Your task to perform on an android device: Open the calendar and show me this week's events Image 0: 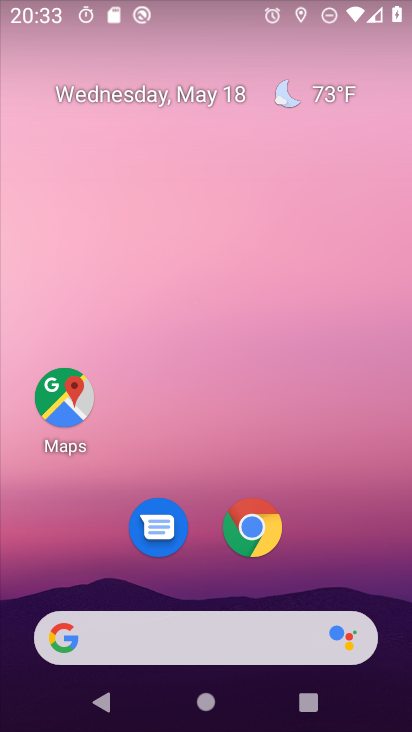
Step 0: drag from (396, 713) to (373, 213)
Your task to perform on an android device: Open the calendar and show me this week's events Image 1: 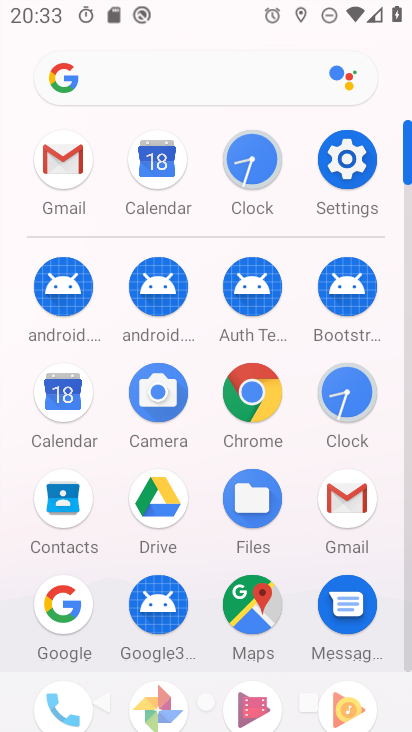
Step 1: click (77, 410)
Your task to perform on an android device: Open the calendar and show me this week's events Image 2: 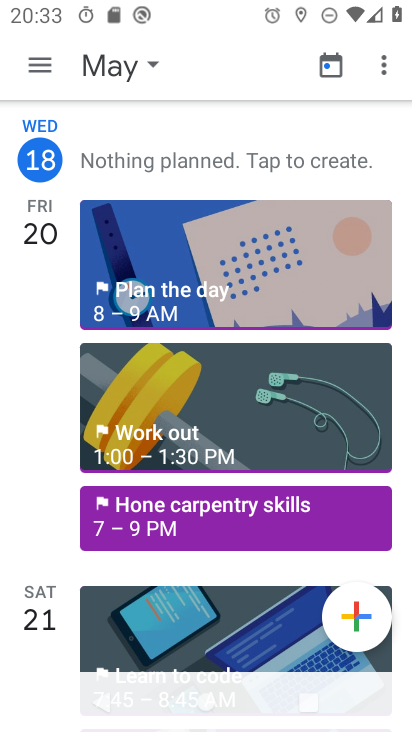
Step 2: click (42, 61)
Your task to perform on an android device: Open the calendar and show me this week's events Image 3: 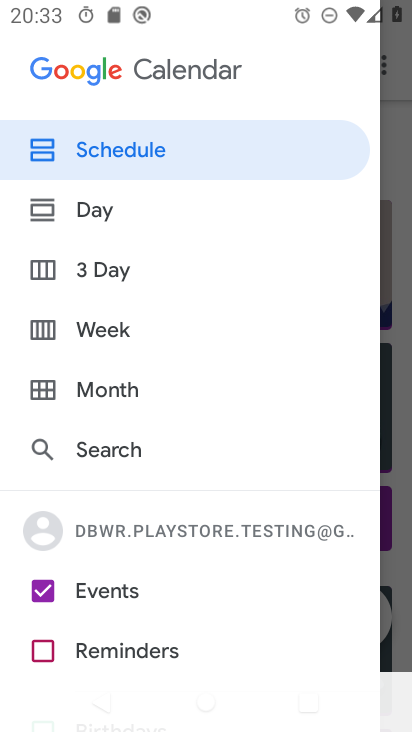
Step 3: click (101, 322)
Your task to perform on an android device: Open the calendar and show me this week's events Image 4: 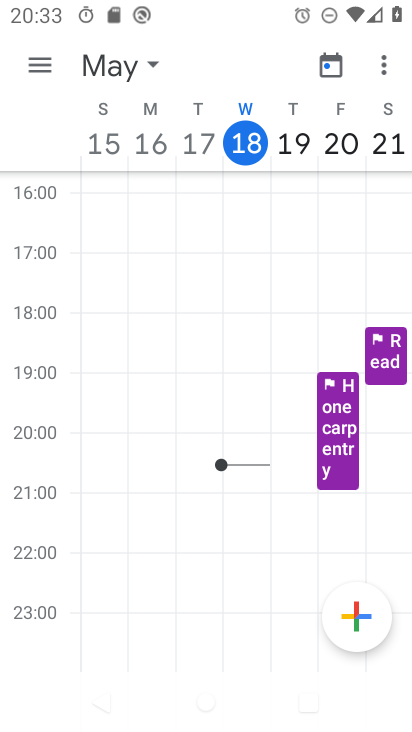
Step 4: task complete